Your task to perform on an android device: open app "VLC for Android" Image 0: 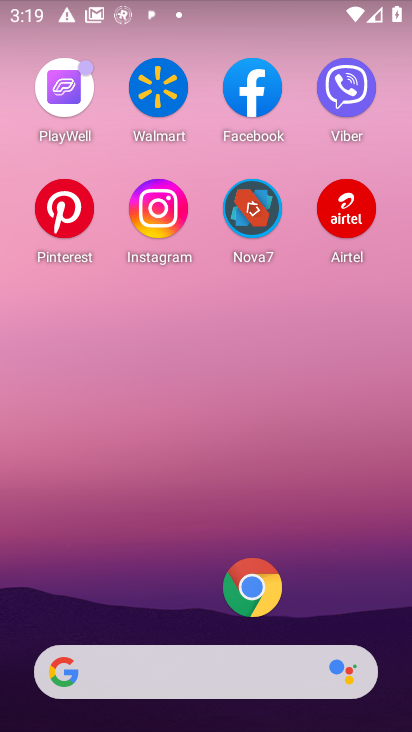
Step 0: drag from (186, 589) to (207, 198)
Your task to perform on an android device: open app "VLC for Android" Image 1: 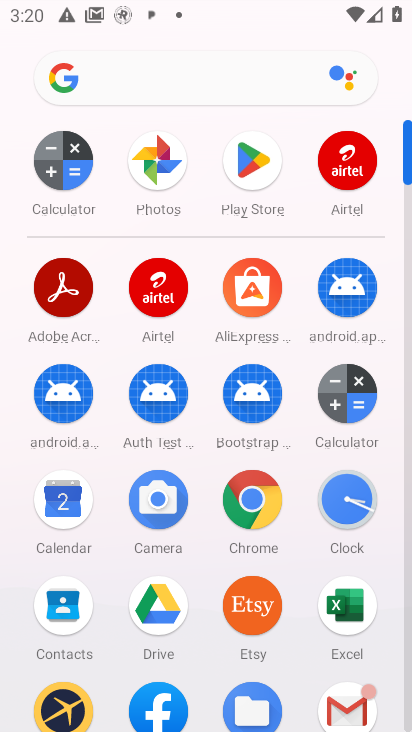
Step 1: click (257, 152)
Your task to perform on an android device: open app "VLC for Android" Image 2: 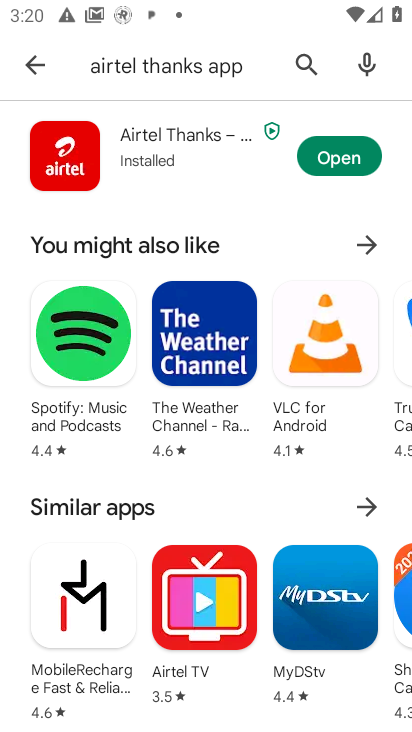
Step 2: drag from (307, 68) to (359, 68)
Your task to perform on an android device: open app "VLC for Android" Image 3: 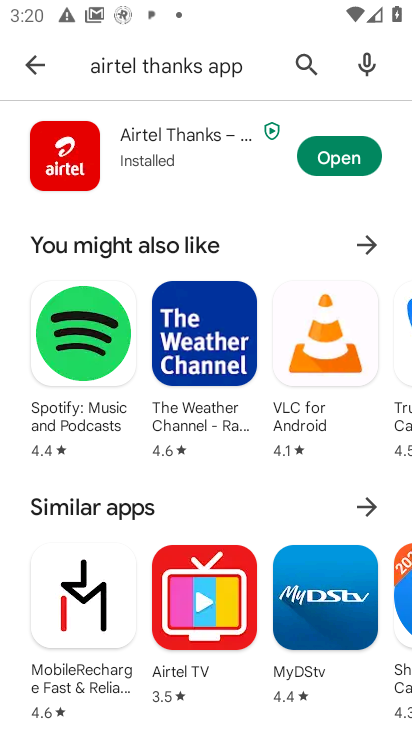
Step 3: click (315, 68)
Your task to perform on an android device: open app "VLC for Android" Image 4: 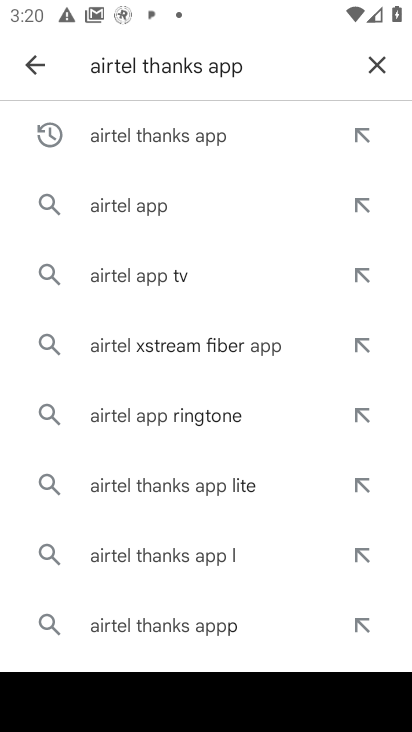
Step 4: click (360, 54)
Your task to perform on an android device: open app "VLC for Android" Image 5: 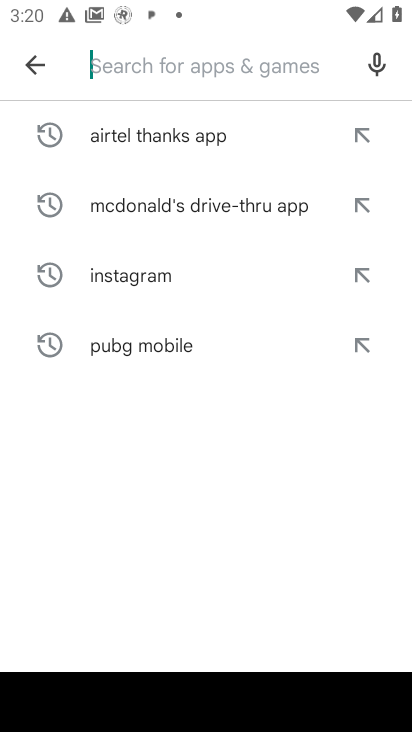
Step 5: type "VLC for Android"
Your task to perform on an android device: open app "VLC for Android" Image 6: 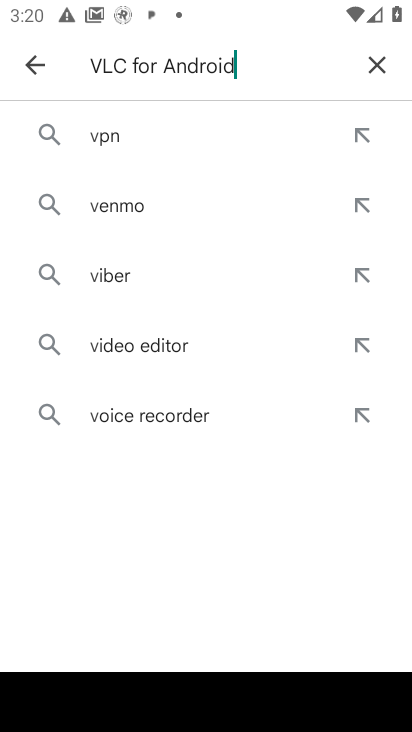
Step 6: type ""
Your task to perform on an android device: open app "VLC for Android" Image 7: 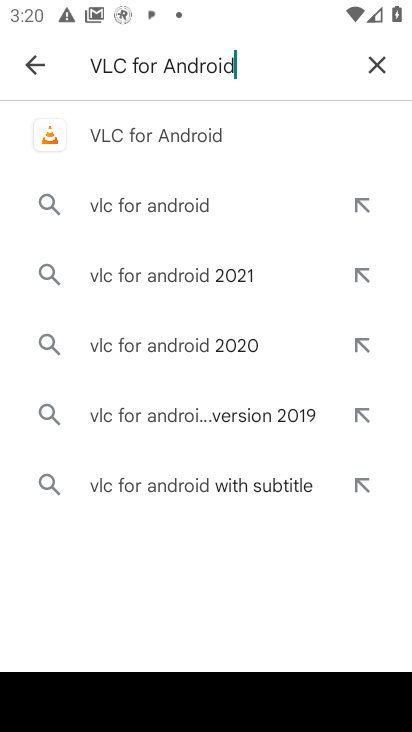
Step 7: click (215, 146)
Your task to perform on an android device: open app "VLC for Android" Image 8: 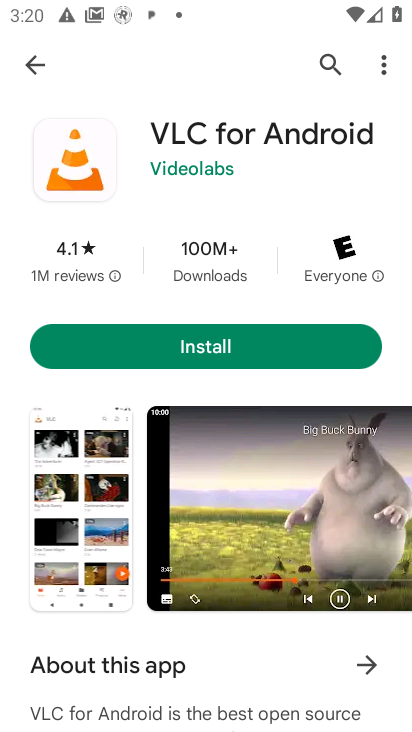
Step 8: task complete